Your task to perform on an android device: Open my contact list Image 0: 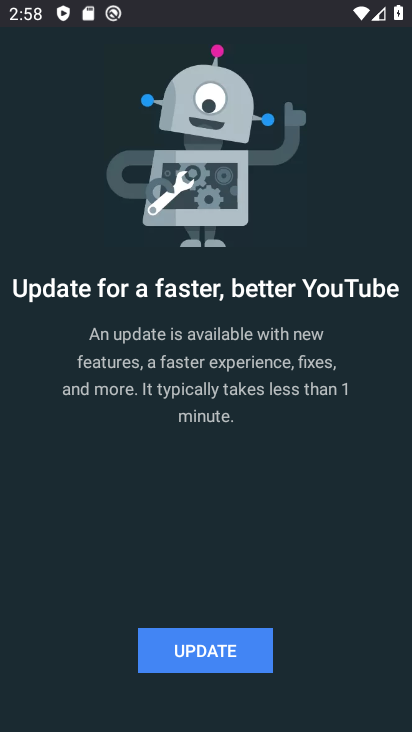
Step 0: press home button
Your task to perform on an android device: Open my contact list Image 1: 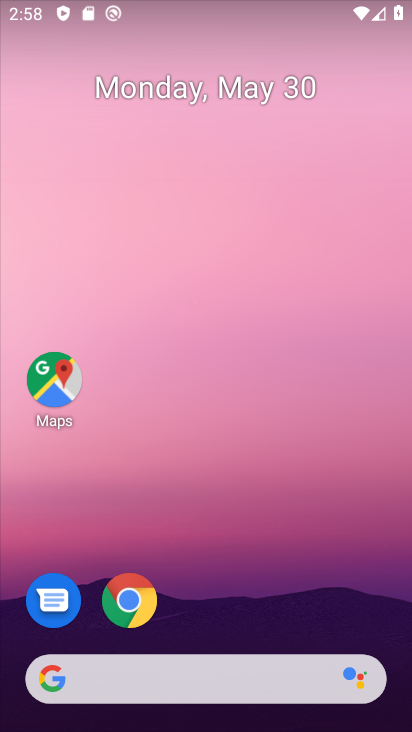
Step 1: drag from (220, 726) to (231, 145)
Your task to perform on an android device: Open my contact list Image 2: 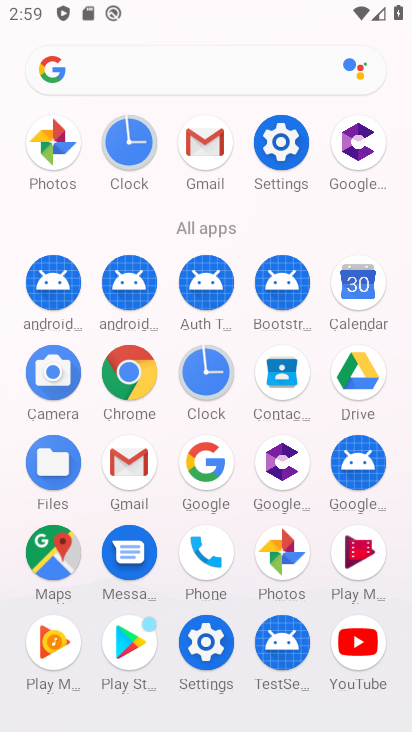
Step 2: click (282, 382)
Your task to perform on an android device: Open my contact list Image 3: 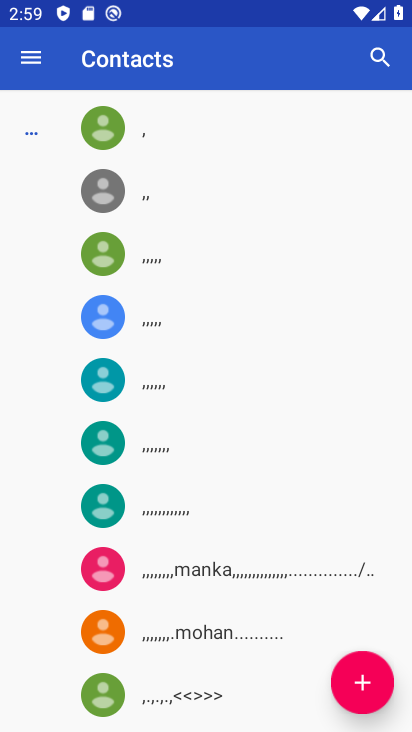
Step 3: task complete